Your task to perform on an android device: open the mobile data screen to see how much data has been used Image 0: 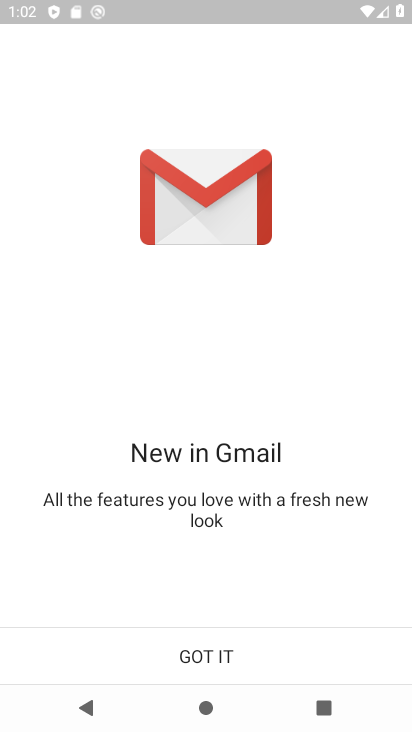
Step 0: press home button
Your task to perform on an android device: open the mobile data screen to see how much data has been used Image 1: 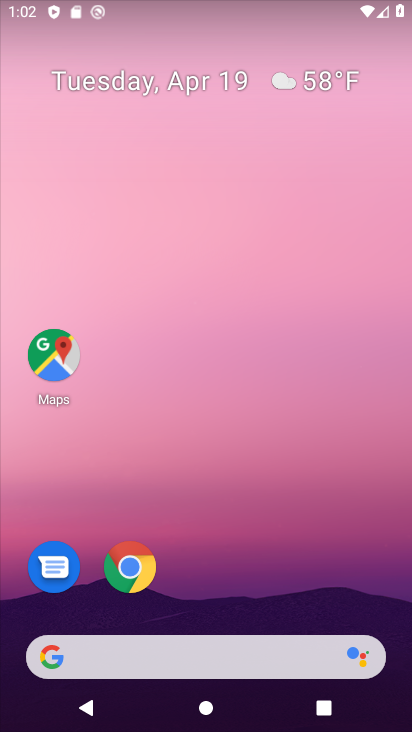
Step 1: drag from (383, 598) to (388, 85)
Your task to perform on an android device: open the mobile data screen to see how much data has been used Image 2: 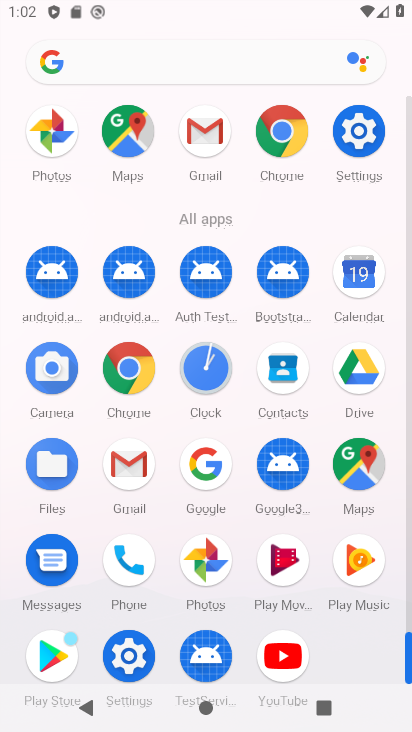
Step 2: click (130, 657)
Your task to perform on an android device: open the mobile data screen to see how much data has been used Image 3: 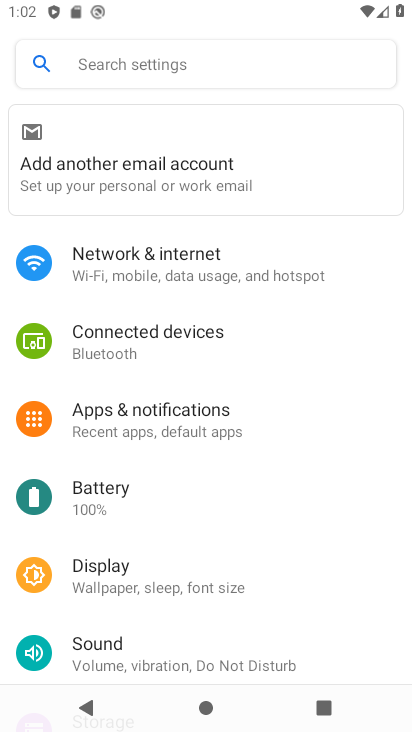
Step 3: click (131, 252)
Your task to perform on an android device: open the mobile data screen to see how much data has been used Image 4: 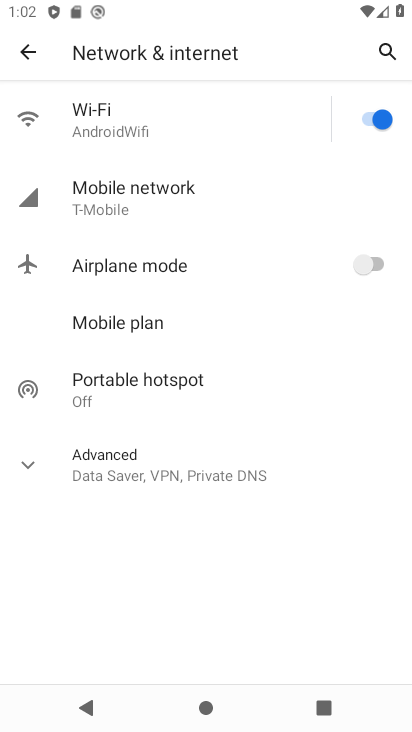
Step 4: click (103, 193)
Your task to perform on an android device: open the mobile data screen to see how much data has been used Image 5: 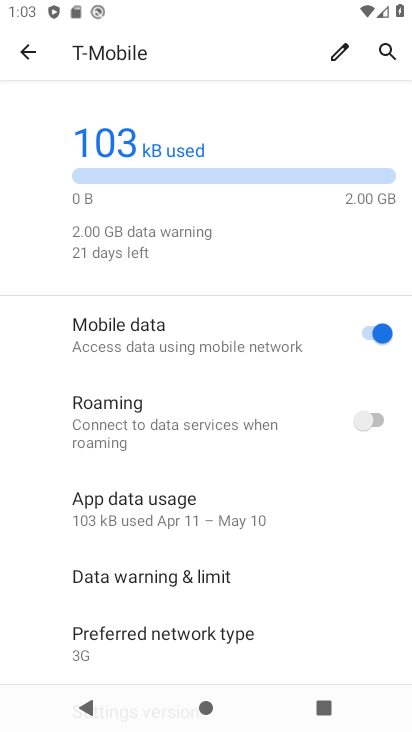
Step 5: task complete